Your task to perform on an android device: Go to sound settings Image 0: 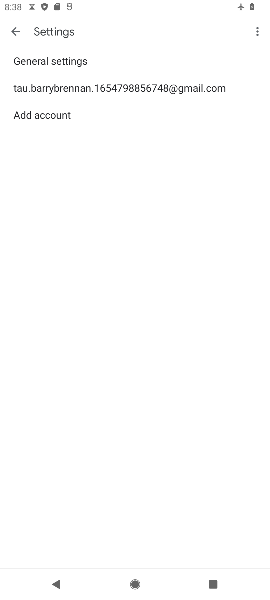
Step 0: press home button
Your task to perform on an android device: Go to sound settings Image 1: 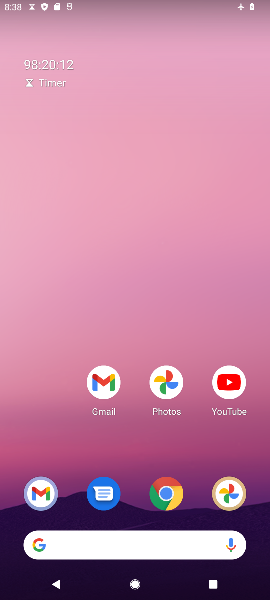
Step 1: drag from (124, 487) to (152, 173)
Your task to perform on an android device: Go to sound settings Image 2: 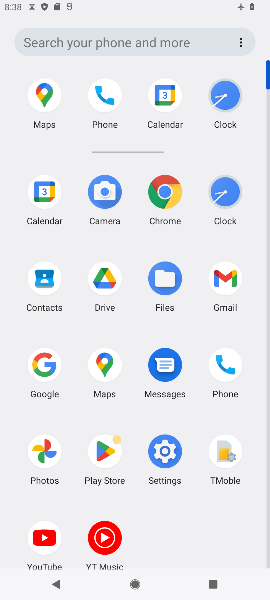
Step 2: click (157, 448)
Your task to perform on an android device: Go to sound settings Image 3: 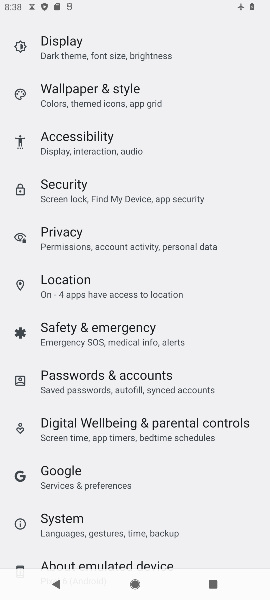
Step 3: drag from (139, 91) to (120, 404)
Your task to perform on an android device: Go to sound settings Image 4: 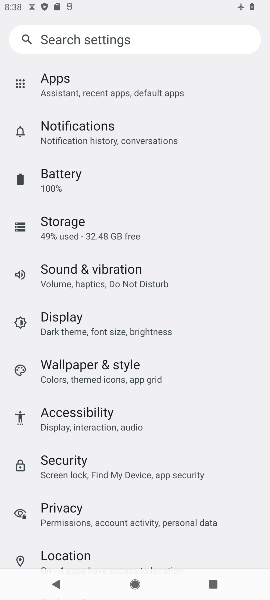
Step 4: click (93, 275)
Your task to perform on an android device: Go to sound settings Image 5: 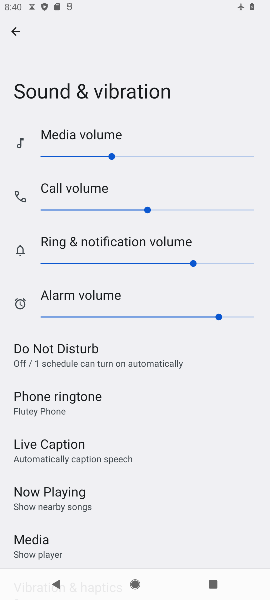
Step 5: task complete